Your task to perform on an android device: Go to battery settings Image 0: 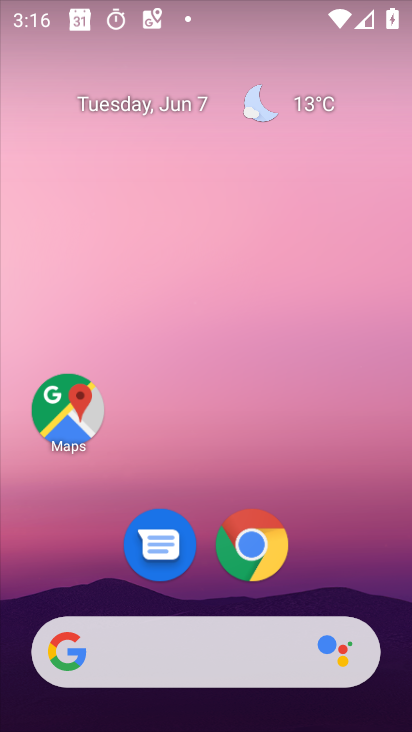
Step 0: drag from (356, 427) to (256, 13)
Your task to perform on an android device: Go to battery settings Image 1: 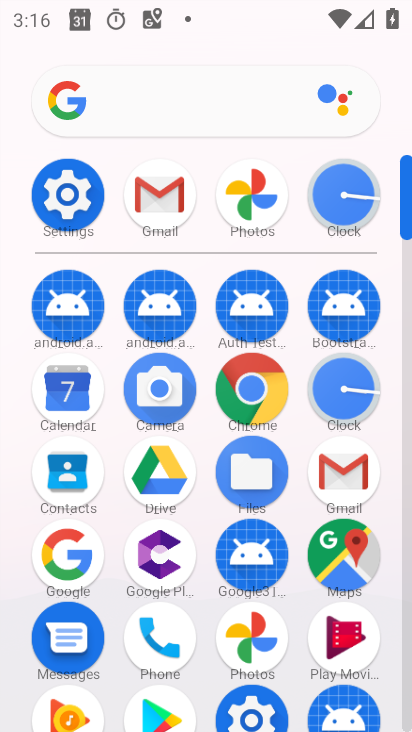
Step 1: click (69, 219)
Your task to perform on an android device: Go to battery settings Image 2: 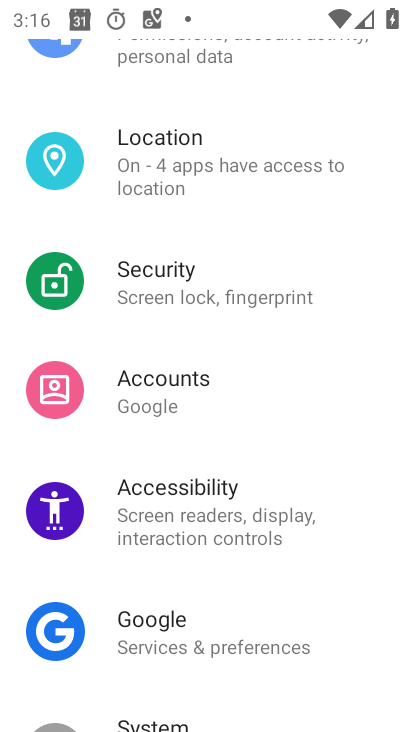
Step 2: drag from (236, 106) to (296, 698)
Your task to perform on an android device: Go to battery settings Image 3: 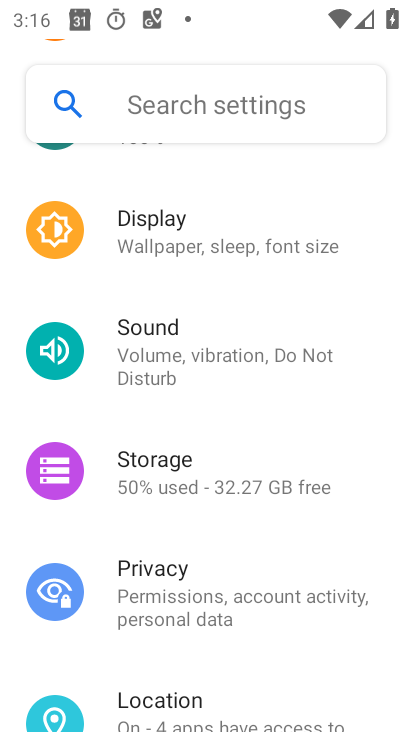
Step 3: drag from (228, 192) to (290, 676)
Your task to perform on an android device: Go to battery settings Image 4: 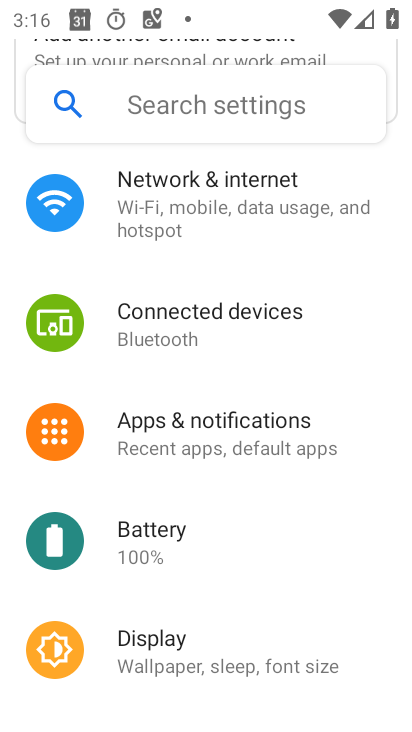
Step 4: click (254, 535)
Your task to perform on an android device: Go to battery settings Image 5: 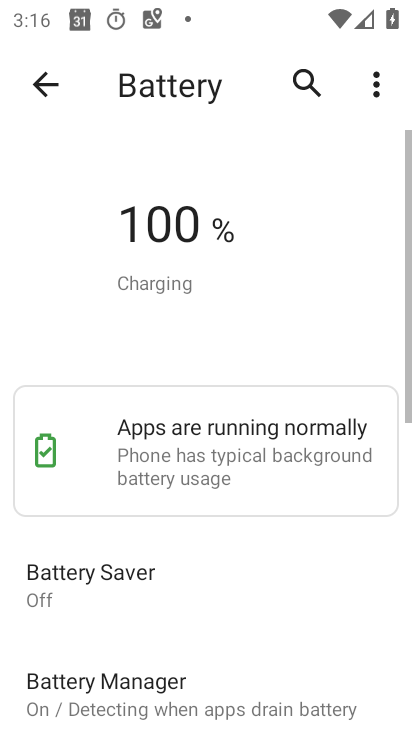
Step 5: task complete